Your task to perform on an android device: What is the recent news? Image 0: 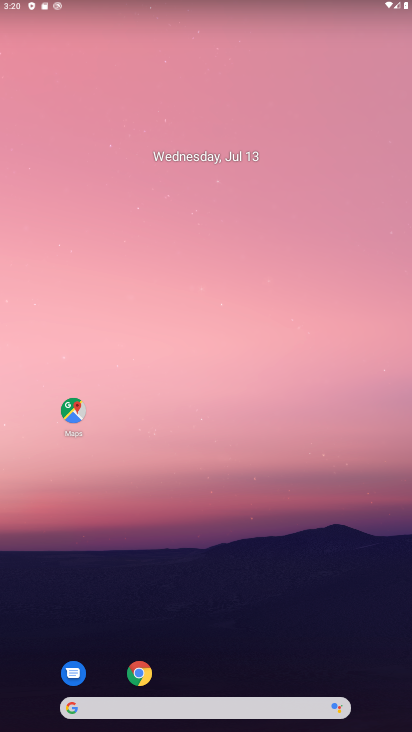
Step 0: drag from (261, 623) to (323, 76)
Your task to perform on an android device: What is the recent news? Image 1: 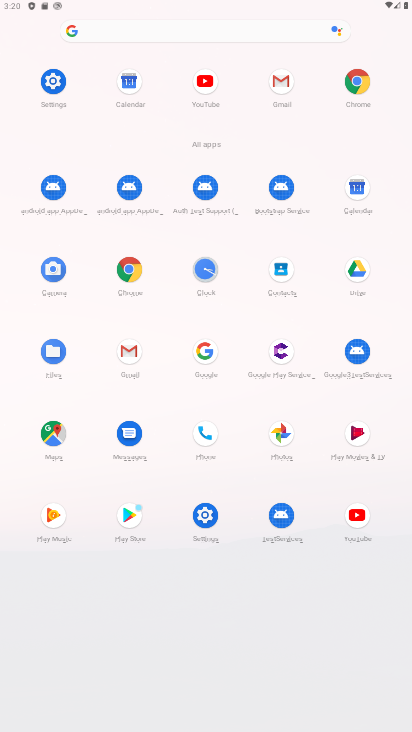
Step 1: click (125, 271)
Your task to perform on an android device: What is the recent news? Image 2: 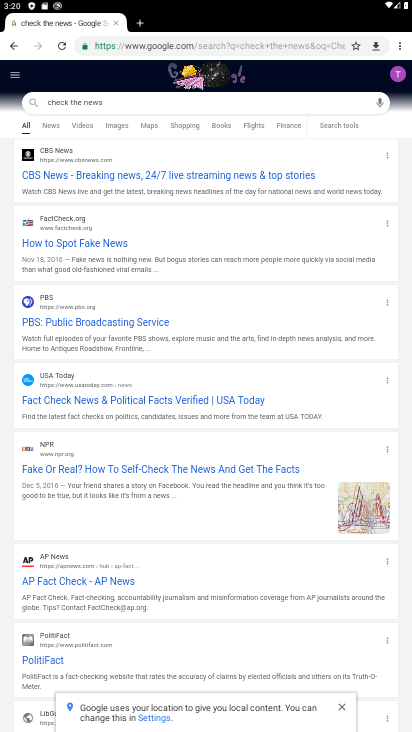
Step 2: click (207, 39)
Your task to perform on an android device: What is the recent news? Image 3: 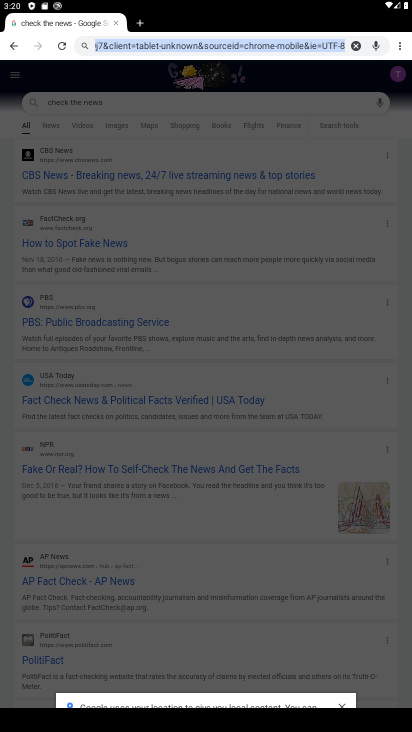
Step 3: click (352, 41)
Your task to perform on an android device: What is the recent news? Image 4: 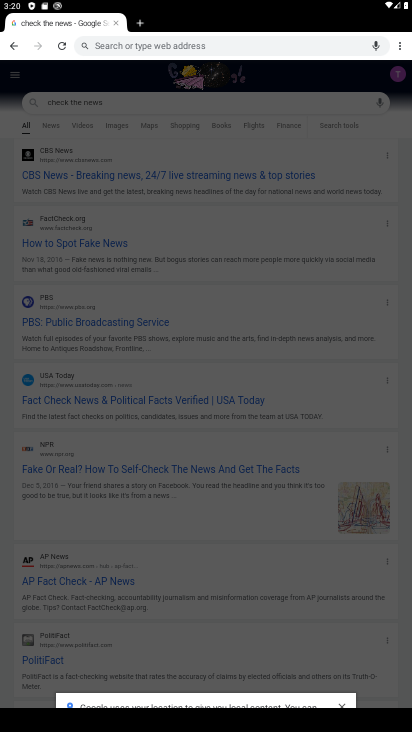
Step 4: type "What is the recent news?"
Your task to perform on an android device: What is the recent news? Image 5: 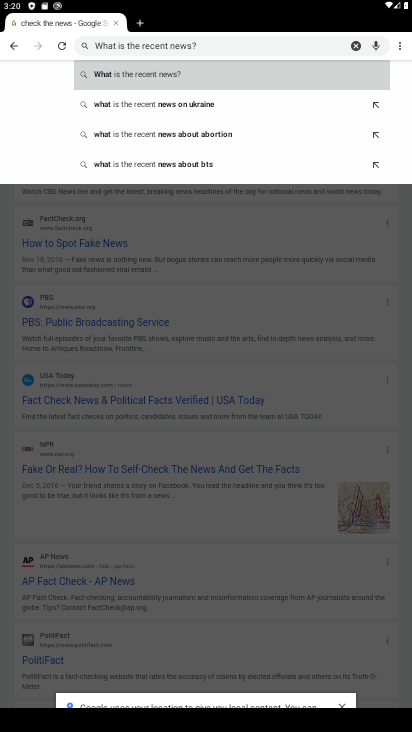
Step 5: click (117, 64)
Your task to perform on an android device: What is the recent news? Image 6: 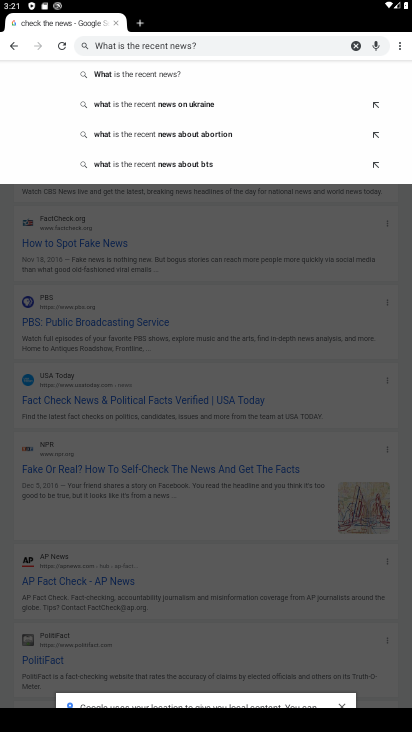
Step 6: click (124, 65)
Your task to perform on an android device: What is the recent news? Image 7: 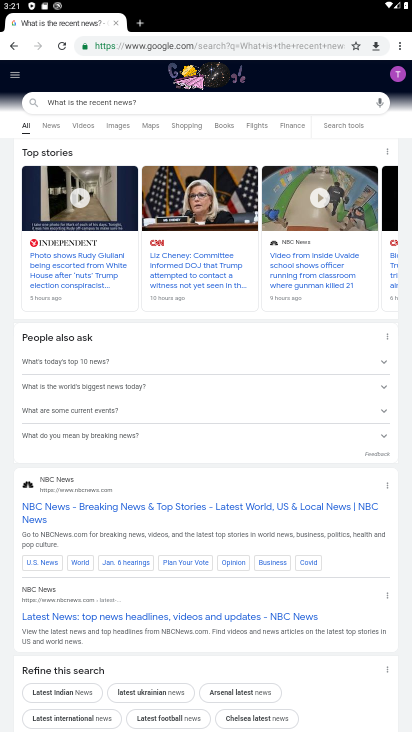
Step 7: task complete